Your task to perform on an android device: turn off sleep mode Image 0: 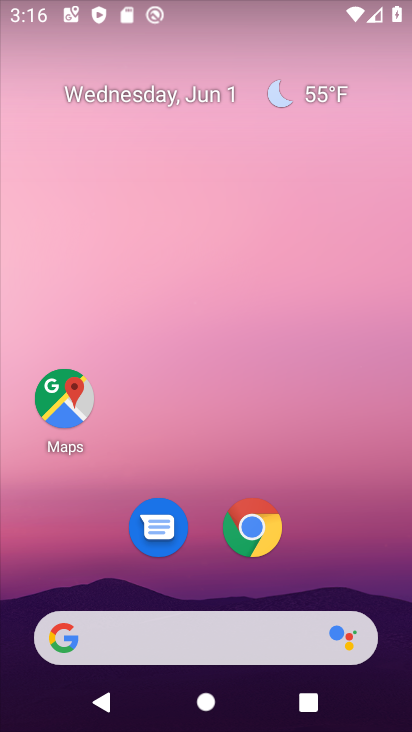
Step 0: drag from (365, 550) to (228, 99)
Your task to perform on an android device: turn off sleep mode Image 1: 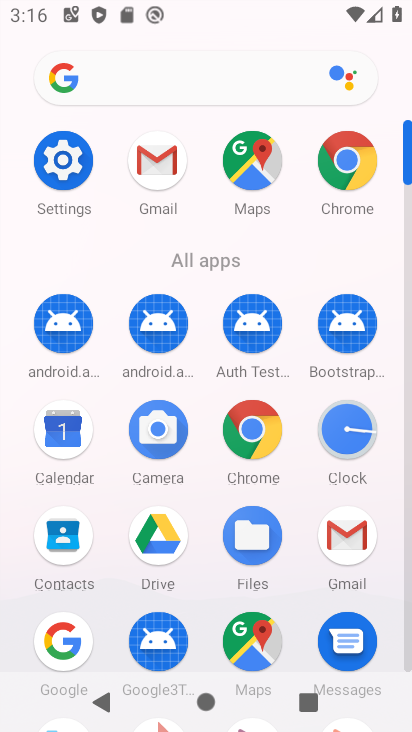
Step 1: click (53, 150)
Your task to perform on an android device: turn off sleep mode Image 2: 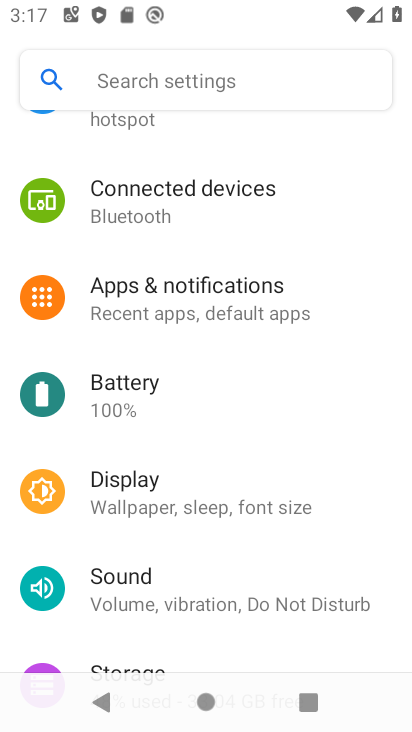
Step 2: click (119, 484)
Your task to perform on an android device: turn off sleep mode Image 3: 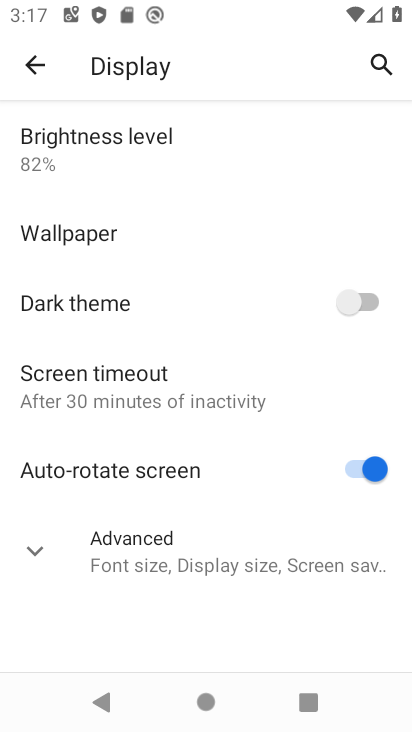
Step 3: task complete